Your task to perform on an android device: toggle location history Image 0: 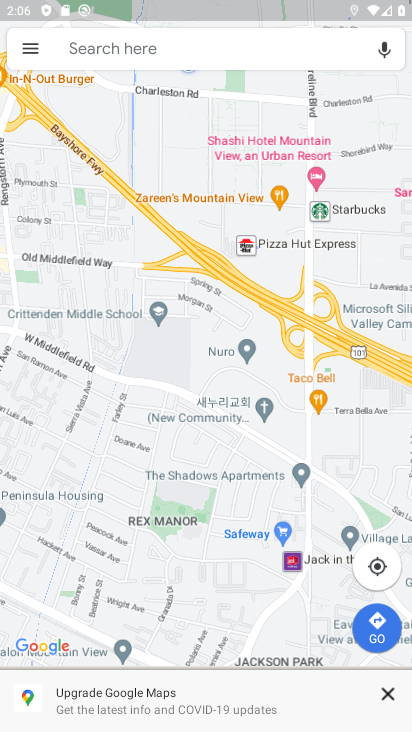
Step 0: press home button
Your task to perform on an android device: toggle location history Image 1: 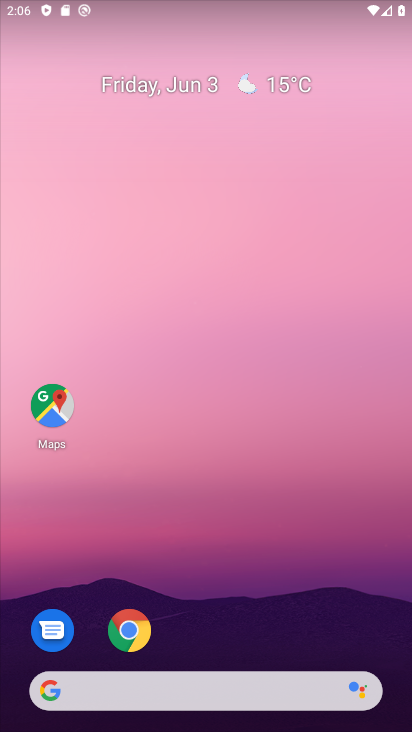
Step 1: click (49, 391)
Your task to perform on an android device: toggle location history Image 2: 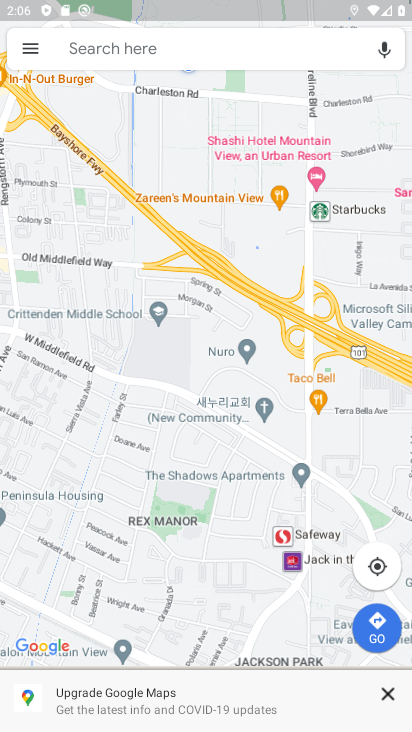
Step 2: drag from (17, 46) to (14, 414)
Your task to perform on an android device: toggle location history Image 3: 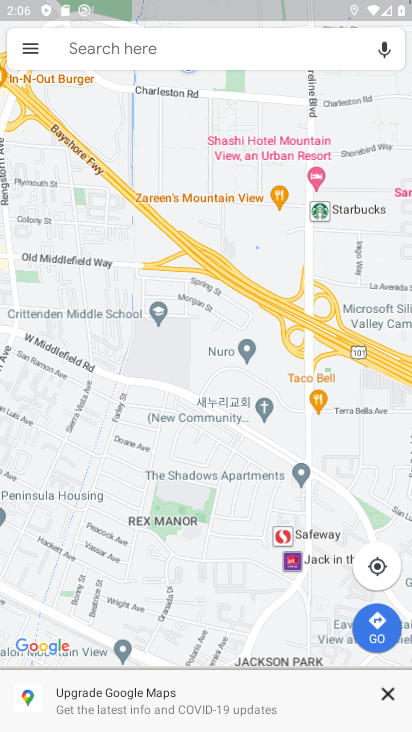
Step 3: drag from (43, 48) to (81, 119)
Your task to perform on an android device: toggle location history Image 4: 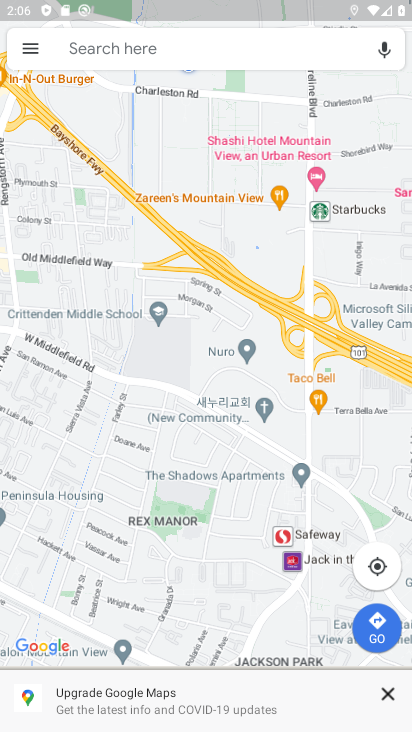
Step 4: drag from (23, 51) to (220, 192)
Your task to perform on an android device: toggle location history Image 5: 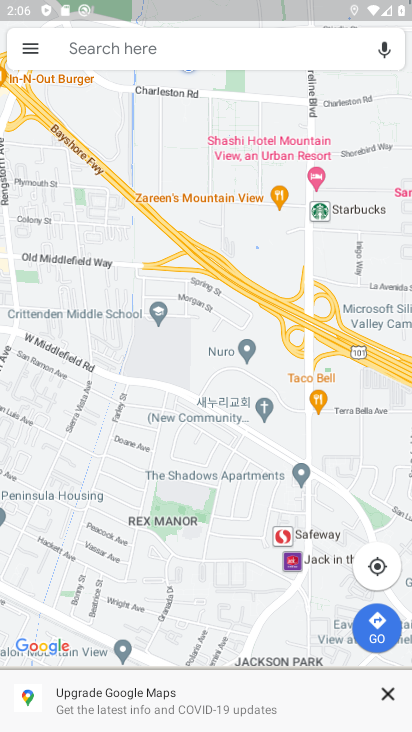
Step 5: drag from (3, 199) to (363, 317)
Your task to perform on an android device: toggle location history Image 6: 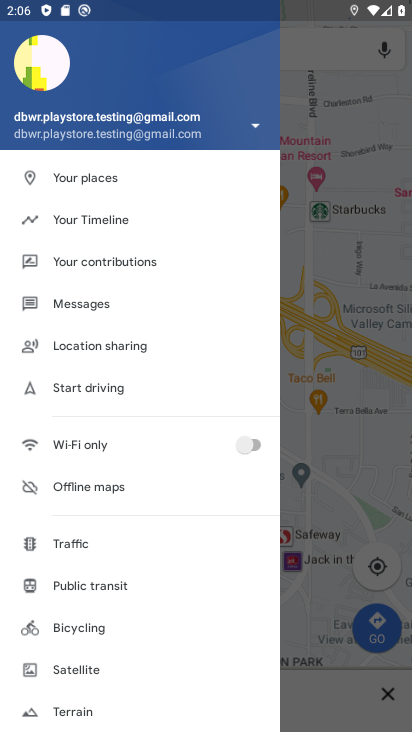
Step 6: click (92, 227)
Your task to perform on an android device: toggle location history Image 7: 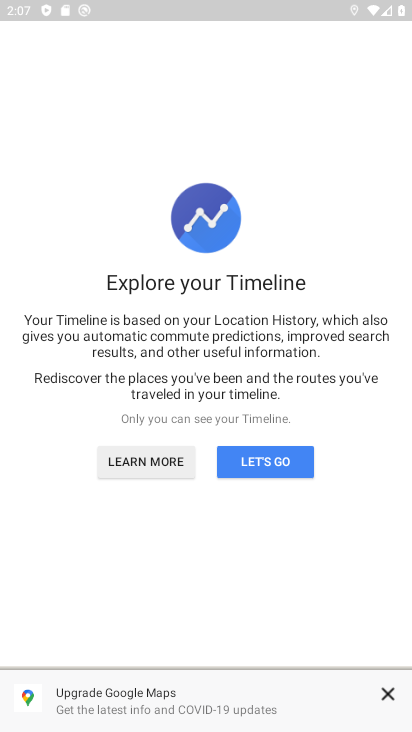
Step 7: click (285, 464)
Your task to perform on an android device: toggle location history Image 8: 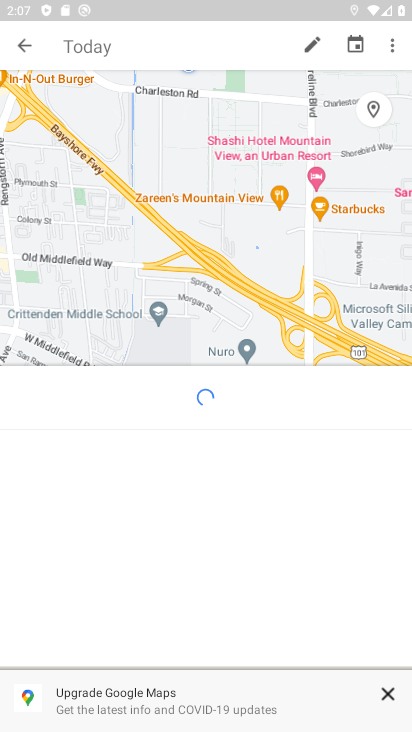
Step 8: click (383, 43)
Your task to perform on an android device: toggle location history Image 9: 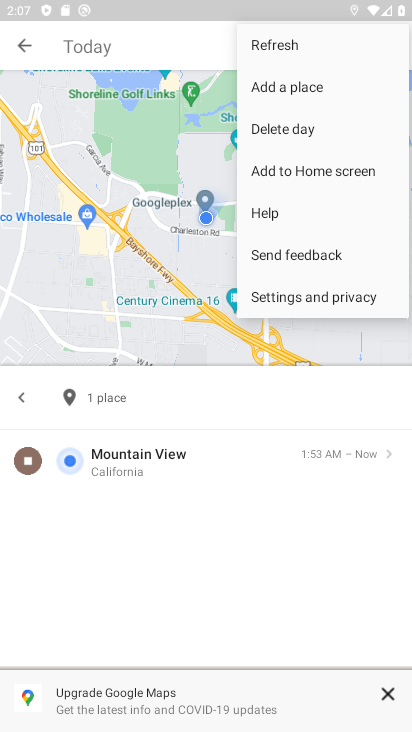
Step 9: click (335, 289)
Your task to perform on an android device: toggle location history Image 10: 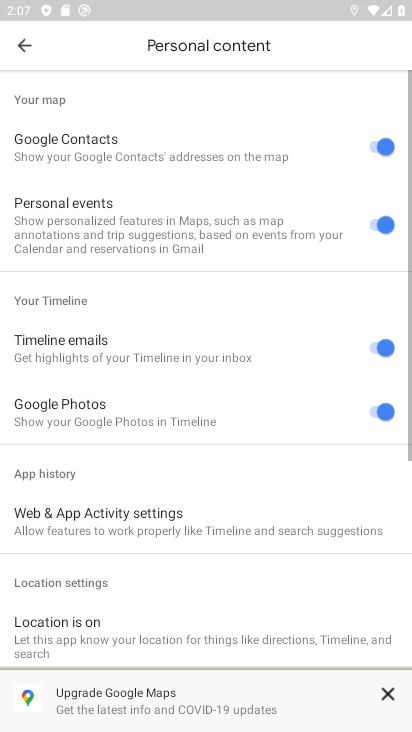
Step 10: drag from (301, 514) to (278, 215)
Your task to perform on an android device: toggle location history Image 11: 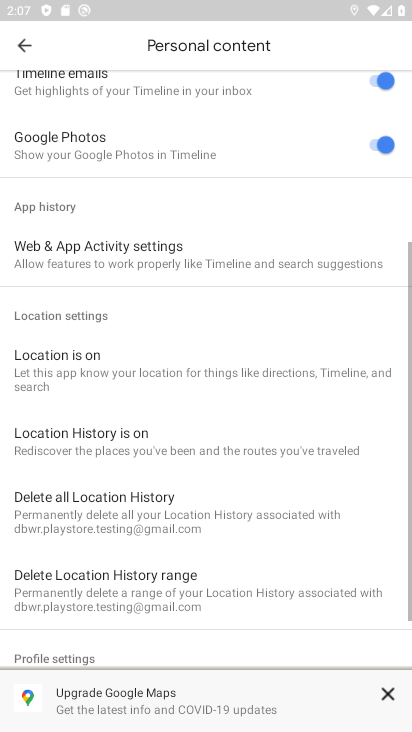
Step 11: drag from (302, 462) to (282, 251)
Your task to perform on an android device: toggle location history Image 12: 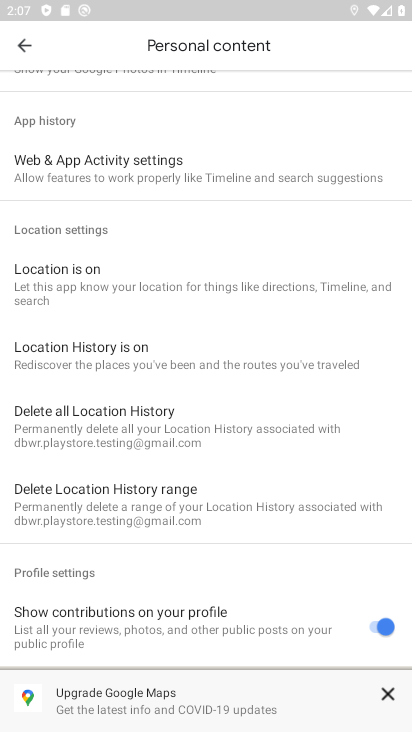
Step 12: click (180, 341)
Your task to perform on an android device: toggle location history Image 13: 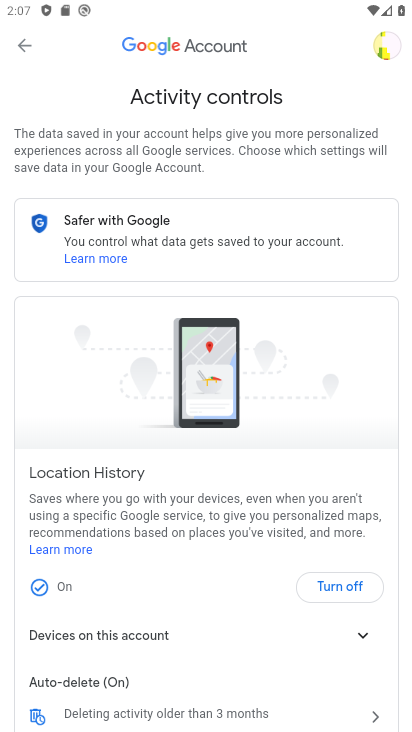
Step 13: click (352, 589)
Your task to perform on an android device: toggle location history Image 14: 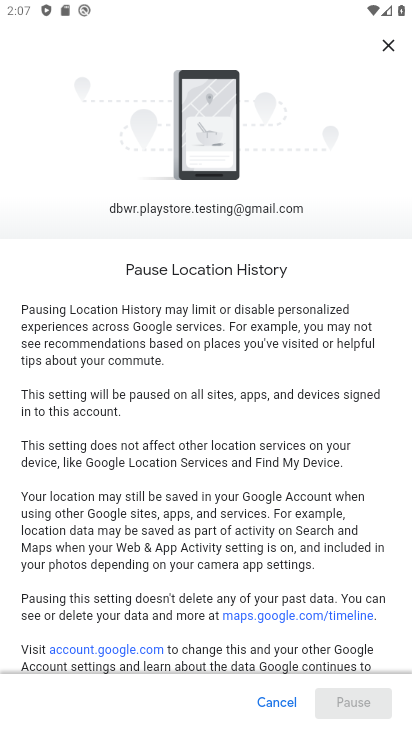
Step 14: drag from (337, 602) to (328, 219)
Your task to perform on an android device: toggle location history Image 15: 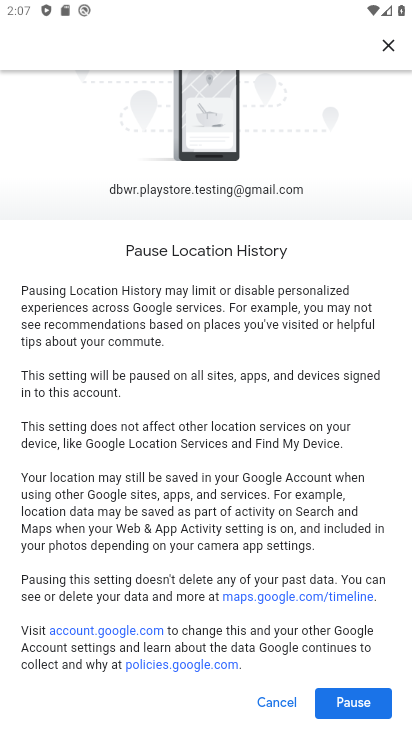
Step 15: click (336, 698)
Your task to perform on an android device: toggle location history Image 16: 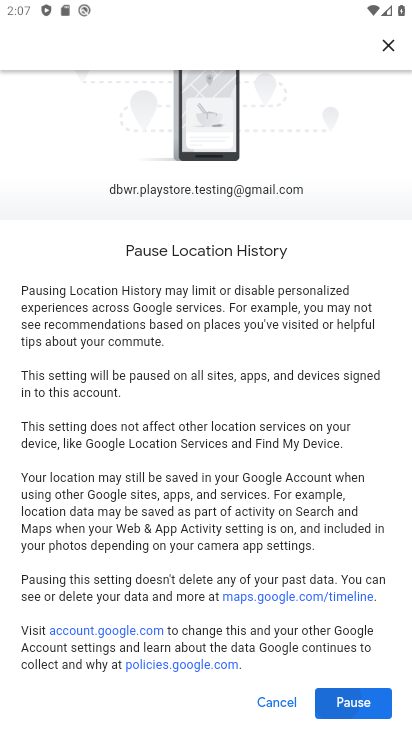
Step 16: click (336, 698)
Your task to perform on an android device: toggle location history Image 17: 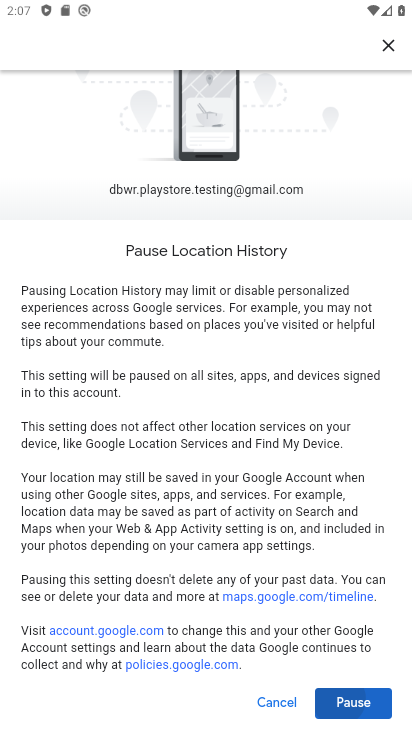
Step 17: click (336, 698)
Your task to perform on an android device: toggle location history Image 18: 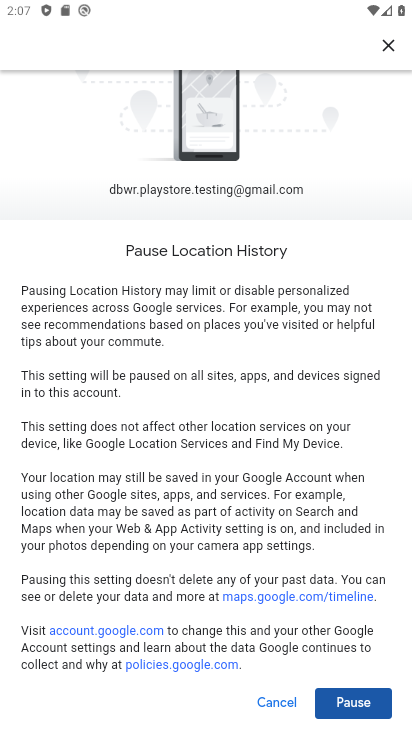
Step 18: click (336, 698)
Your task to perform on an android device: toggle location history Image 19: 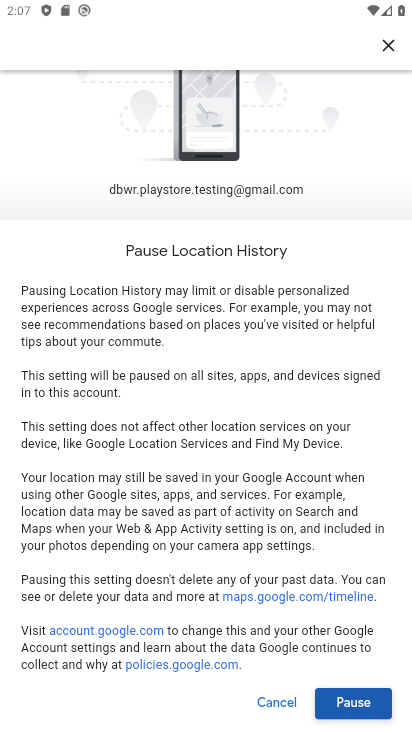
Step 19: click (336, 698)
Your task to perform on an android device: toggle location history Image 20: 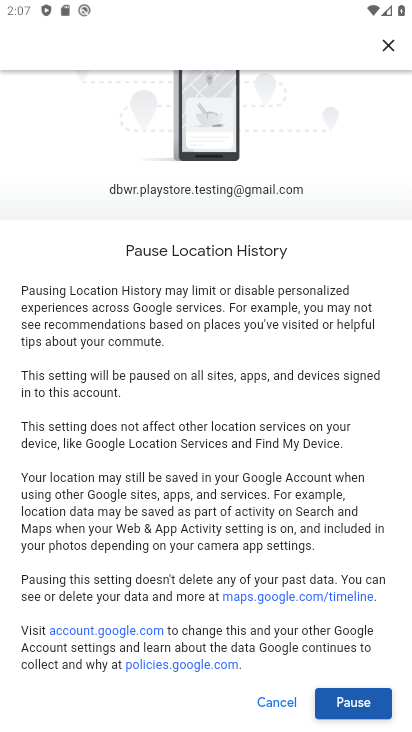
Step 20: click (336, 698)
Your task to perform on an android device: toggle location history Image 21: 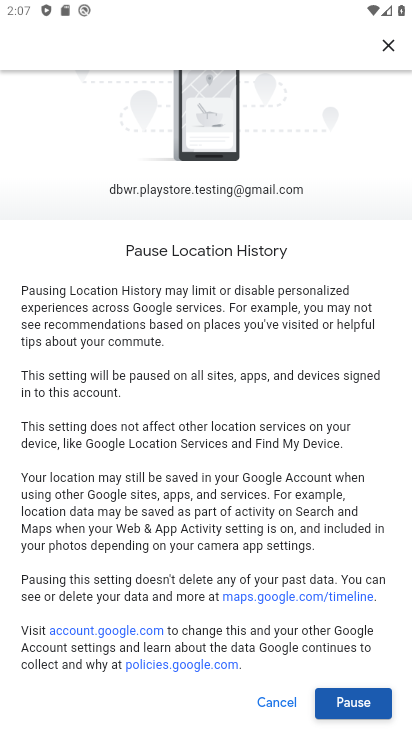
Step 21: click (336, 698)
Your task to perform on an android device: toggle location history Image 22: 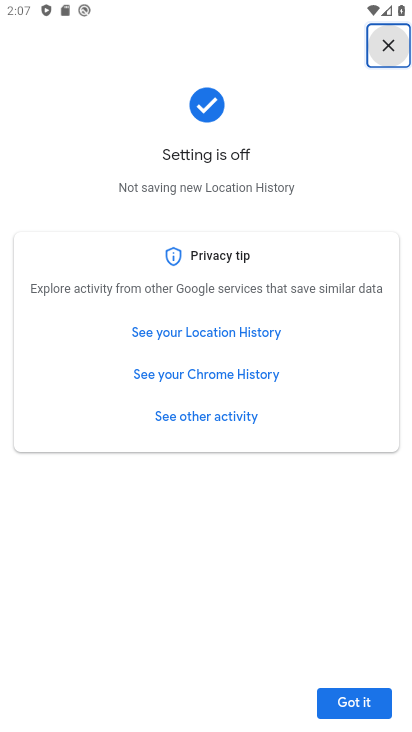
Step 22: click (341, 698)
Your task to perform on an android device: toggle location history Image 23: 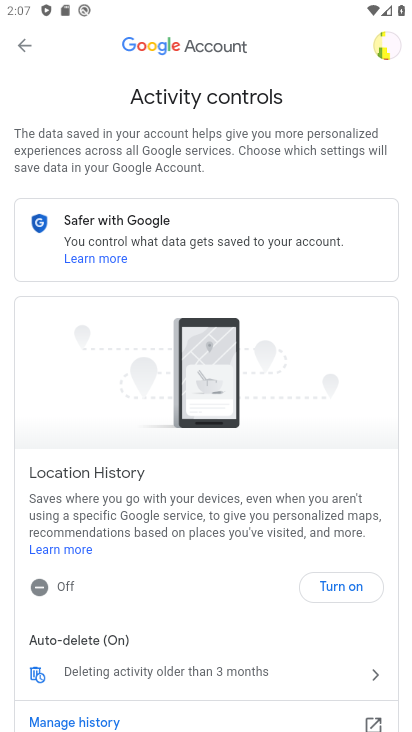
Step 23: task complete